Your task to perform on an android device: toggle notification dots Image 0: 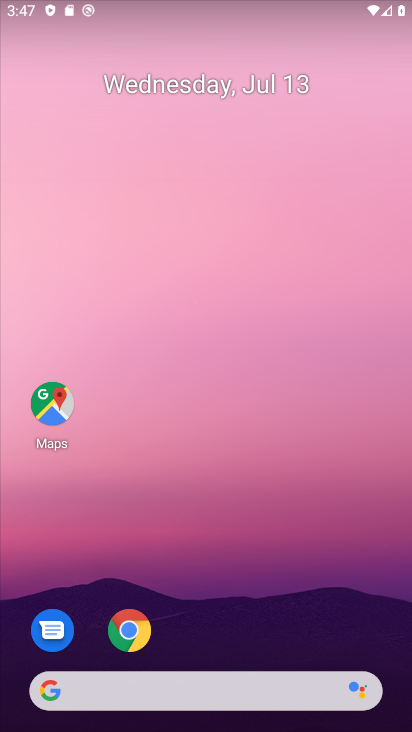
Step 0: drag from (337, 328) to (342, 194)
Your task to perform on an android device: toggle notification dots Image 1: 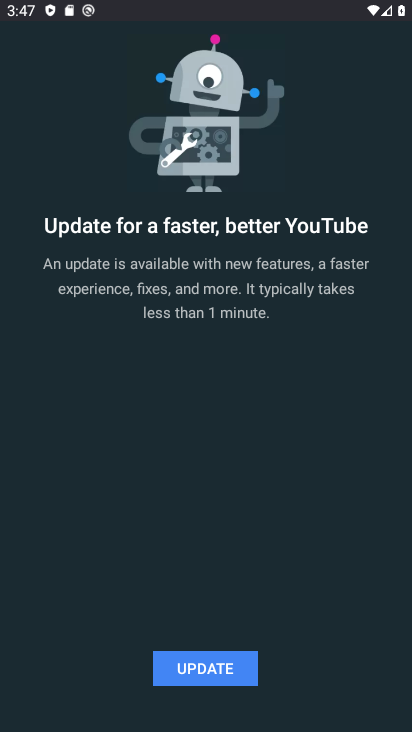
Step 1: press home button
Your task to perform on an android device: toggle notification dots Image 2: 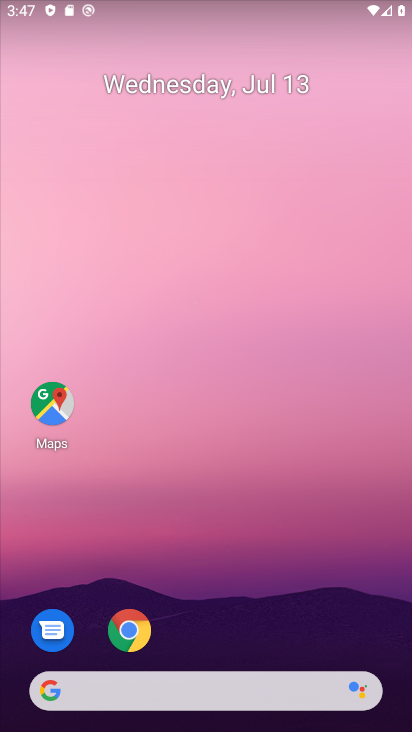
Step 2: drag from (238, 652) to (295, 160)
Your task to perform on an android device: toggle notification dots Image 3: 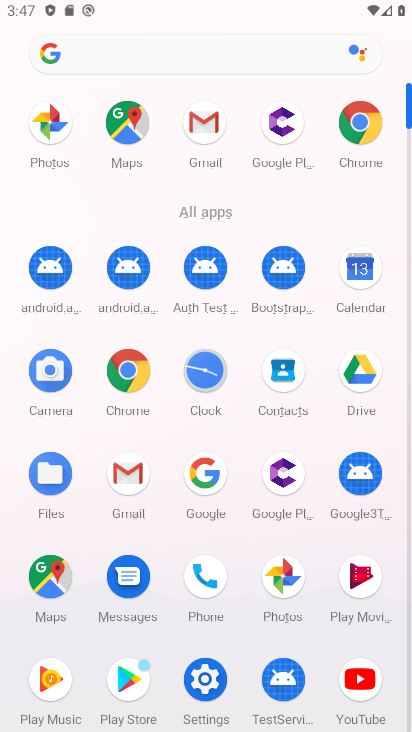
Step 3: click (214, 680)
Your task to perform on an android device: toggle notification dots Image 4: 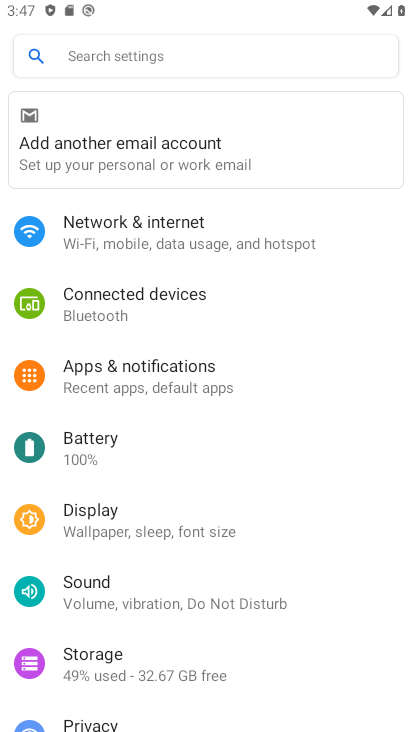
Step 4: click (165, 372)
Your task to perform on an android device: toggle notification dots Image 5: 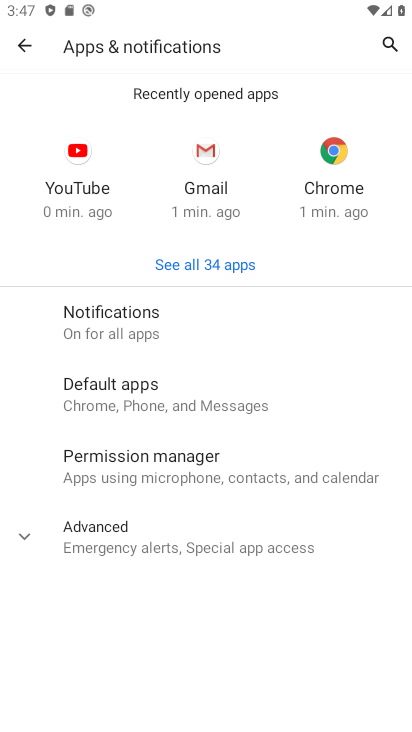
Step 5: click (116, 327)
Your task to perform on an android device: toggle notification dots Image 6: 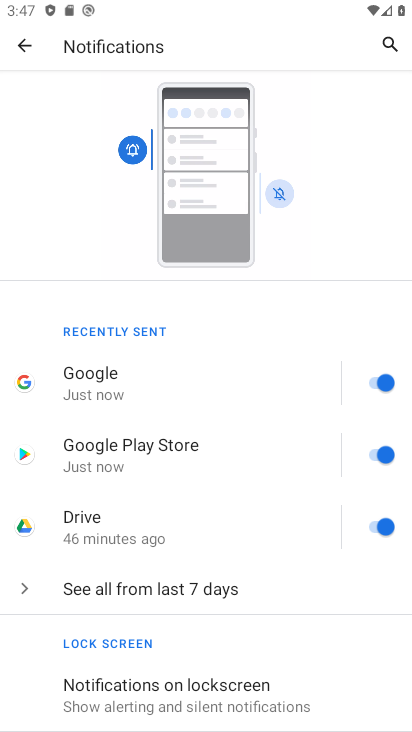
Step 6: drag from (282, 659) to (329, 311)
Your task to perform on an android device: toggle notification dots Image 7: 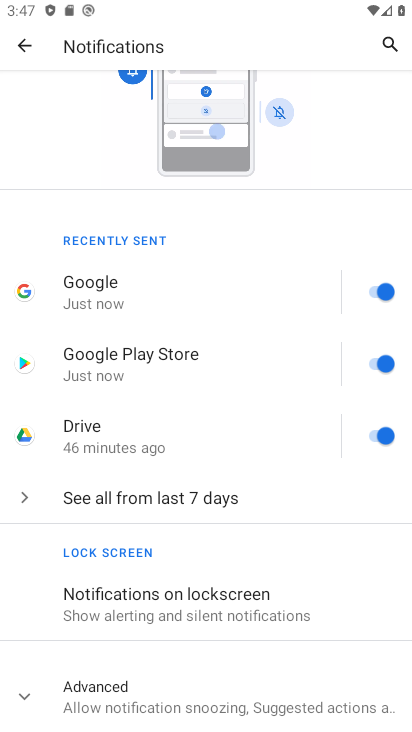
Step 7: click (72, 703)
Your task to perform on an android device: toggle notification dots Image 8: 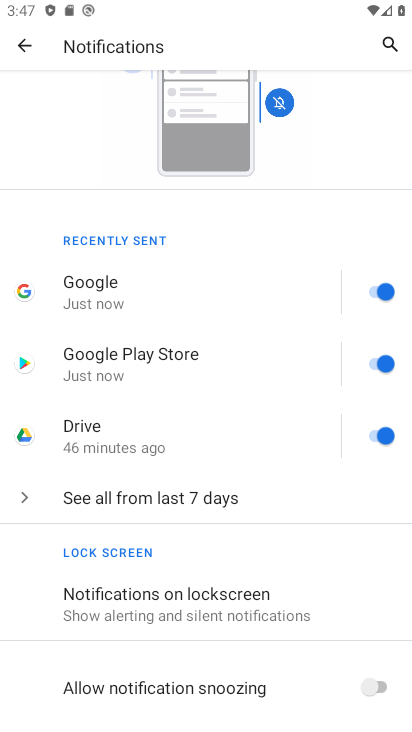
Step 8: drag from (312, 669) to (369, 243)
Your task to perform on an android device: toggle notification dots Image 9: 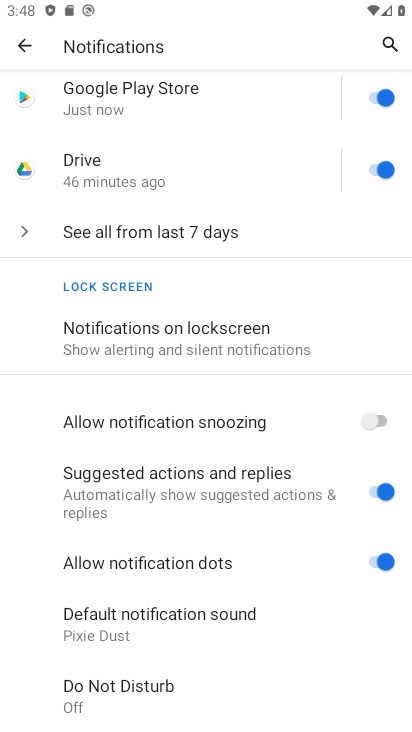
Step 9: click (387, 567)
Your task to perform on an android device: toggle notification dots Image 10: 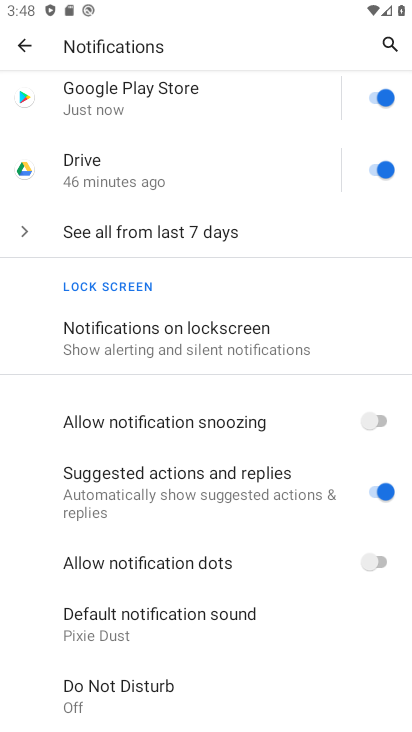
Step 10: task complete